Your task to perform on an android device: Open Youtube and go to the subscriptions tab Image 0: 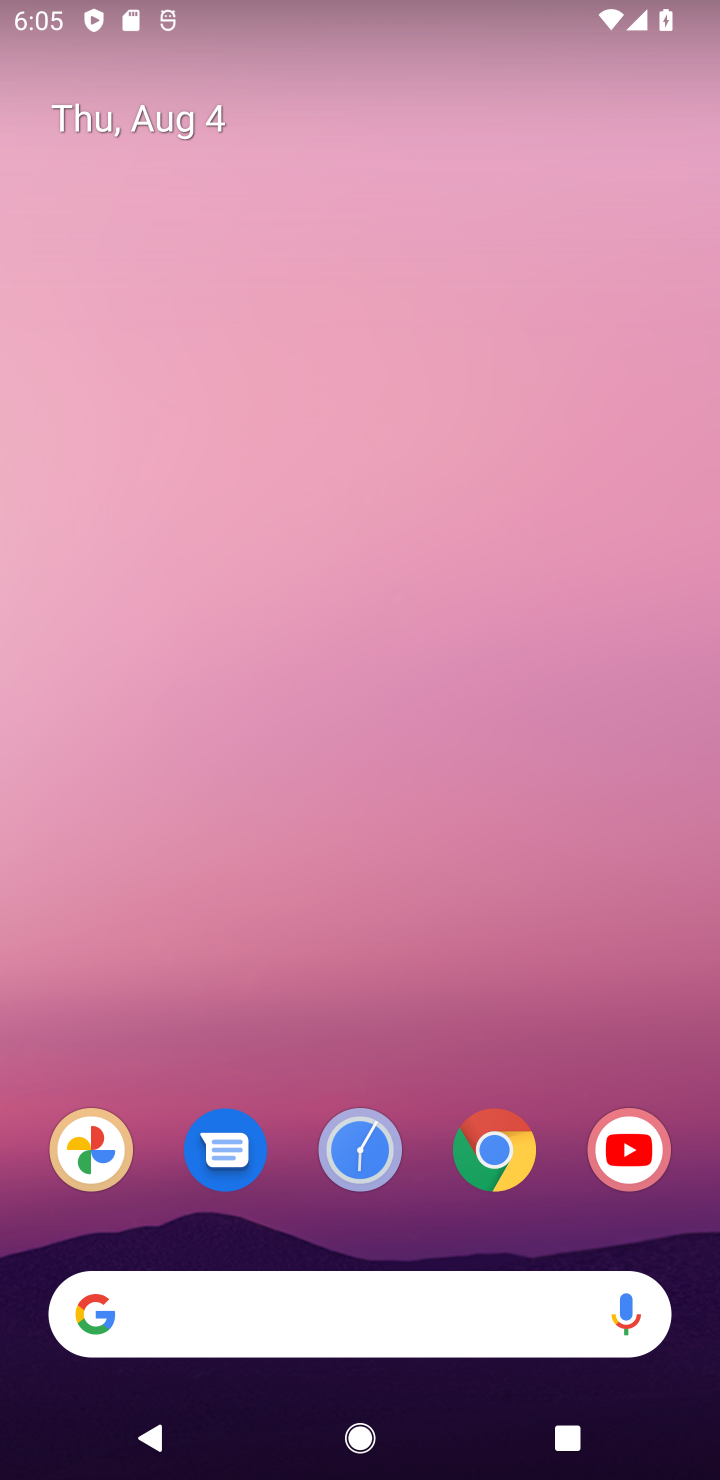
Step 0: drag from (343, 1277) to (533, 23)
Your task to perform on an android device: Open Youtube and go to the subscriptions tab Image 1: 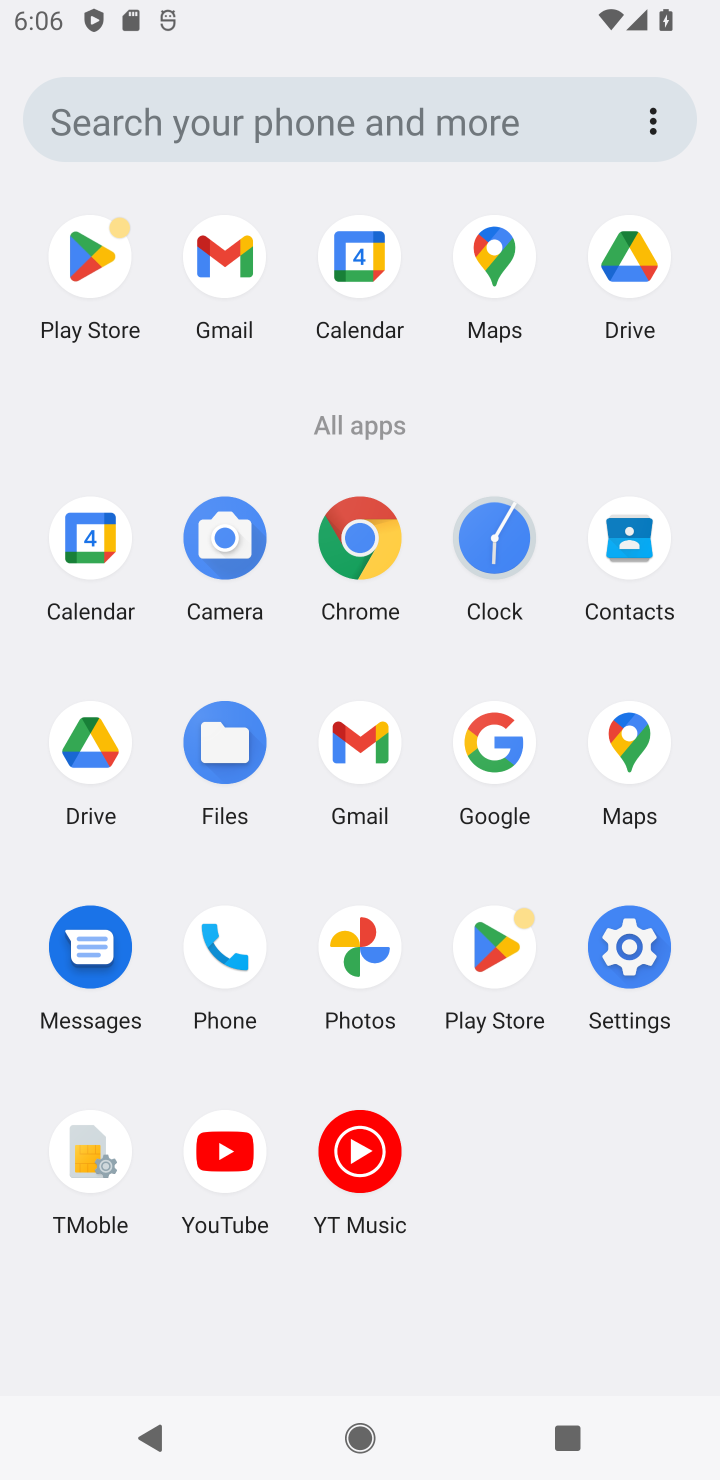
Step 1: click (242, 1157)
Your task to perform on an android device: Open Youtube and go to the subscriptions tab Image 2: 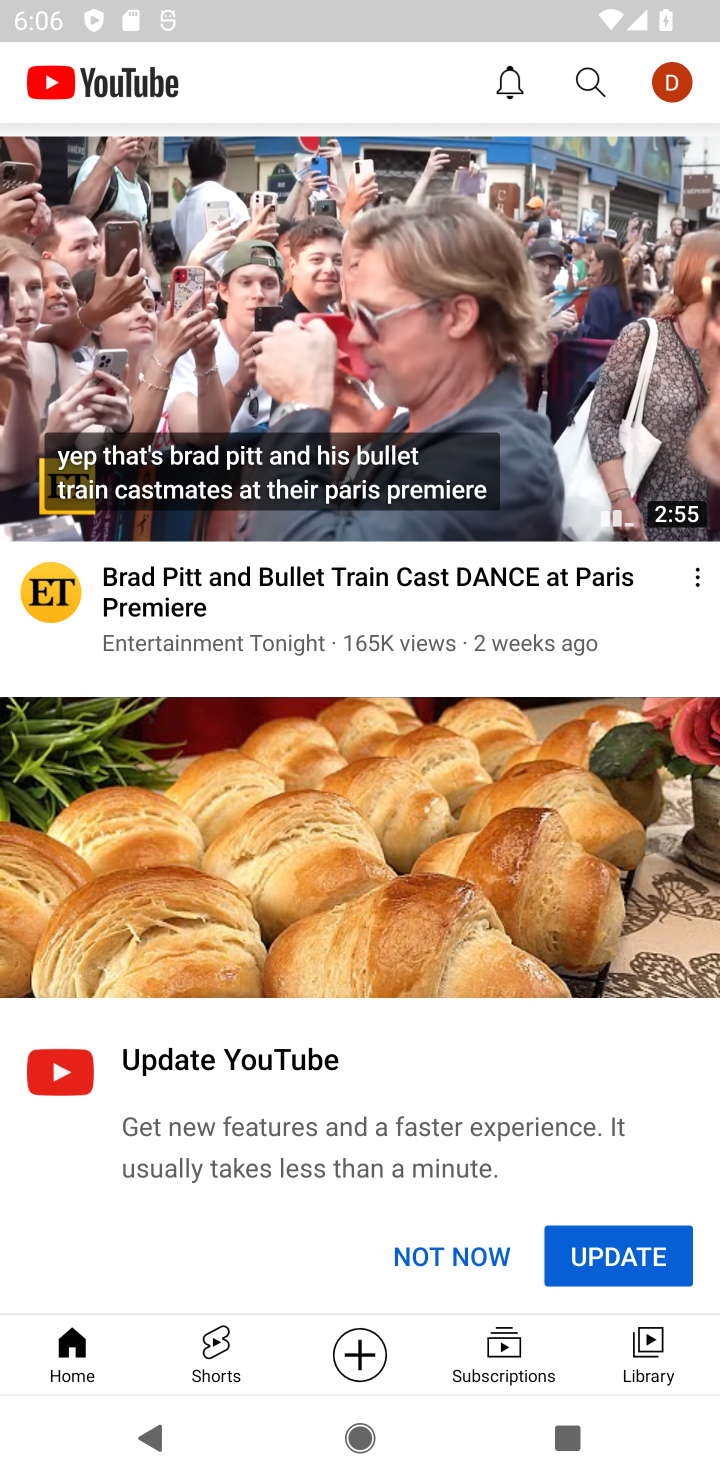
Step 2: click (490, 1345)
Your task to perform on an android device: Open Youtube and go to the subscriptions tab Image 3: 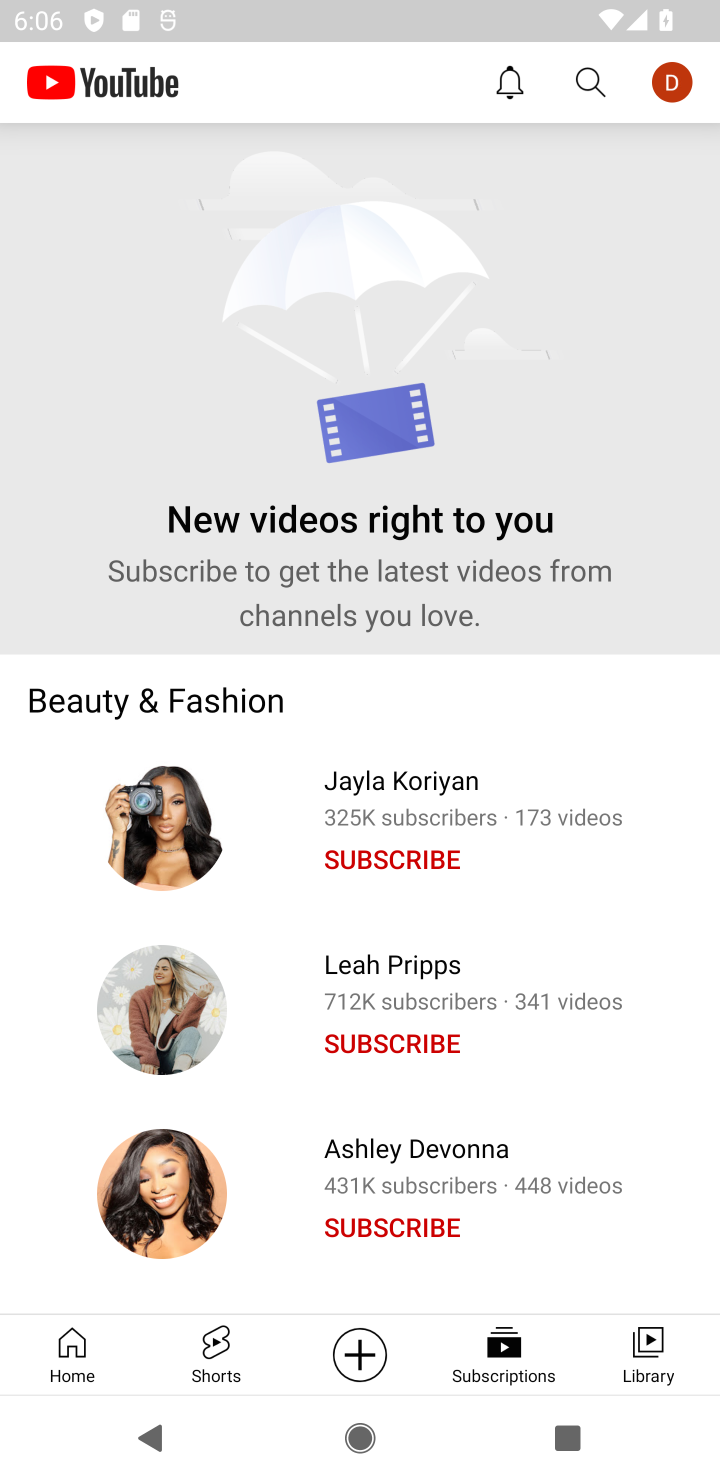
Step 3: task complete